Your task to perform on an android device: search for starred emails in the gmail app Image 0: 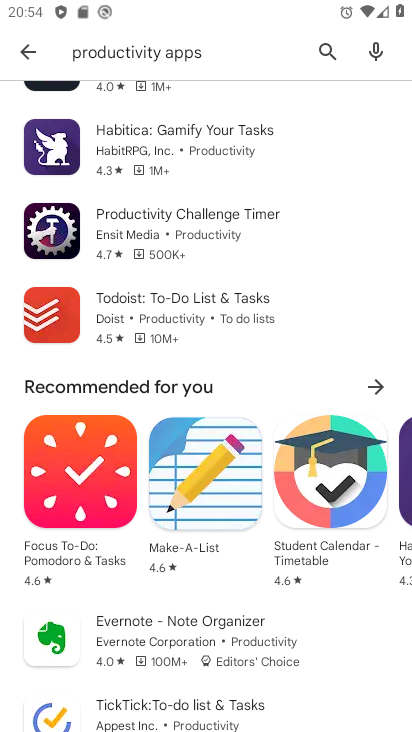
Step 0: press home button
Your task to perform on an android device: search for starred emails in the gmail app Image 1: 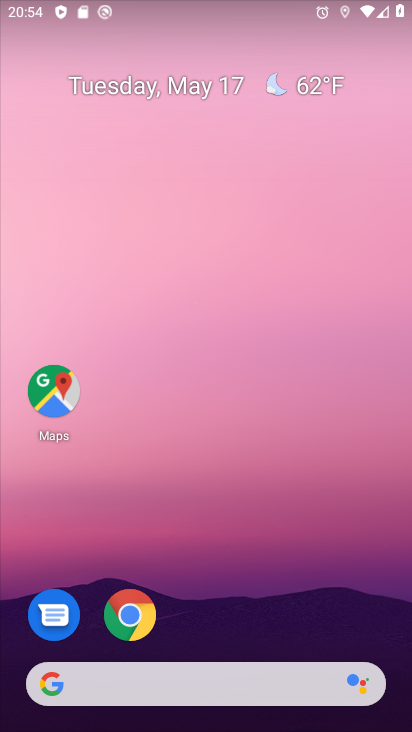
Step 1: drag from (291, 607) to (203, 60)
Your task to perform on an android device: search for starred emails in the gmail app Image 2: 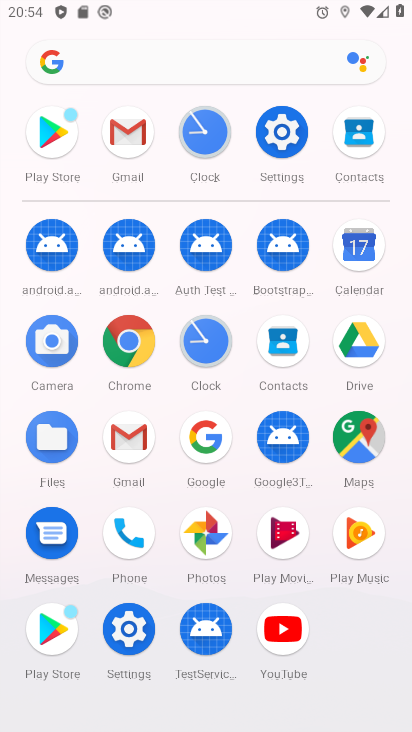
Step 2: click (124, 136)
Your task to perform on an android device: search for starred emails in the gmail app Image 3: 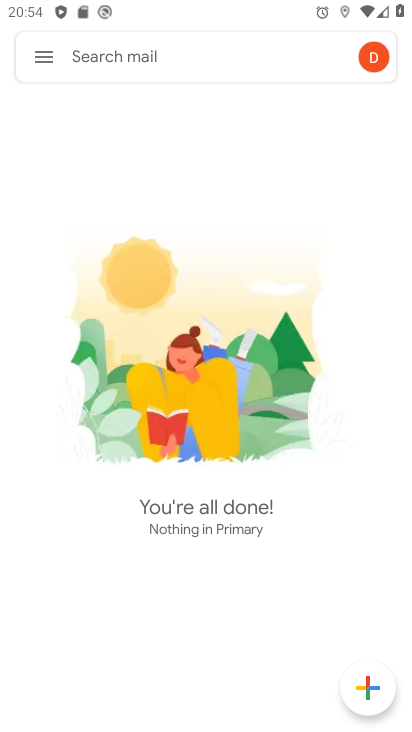
Step 3: click (43, 54)
Your task to perform on an android device: search for starred emails in the gmail app Image 4: 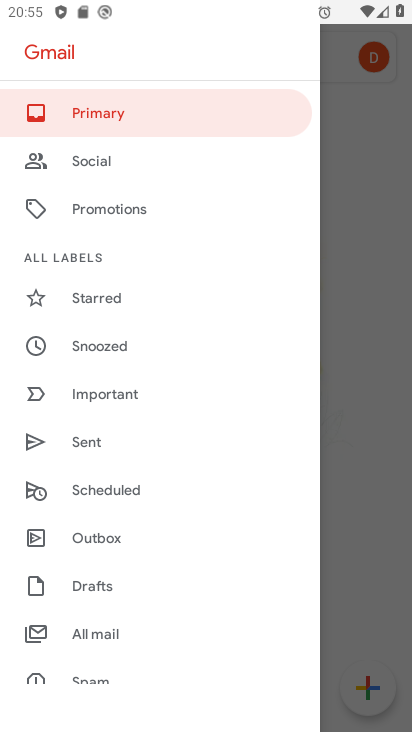
Step 4: click (90, 302)
Your task to perform on an android device: search for starred emails in the gmail app Image 5: 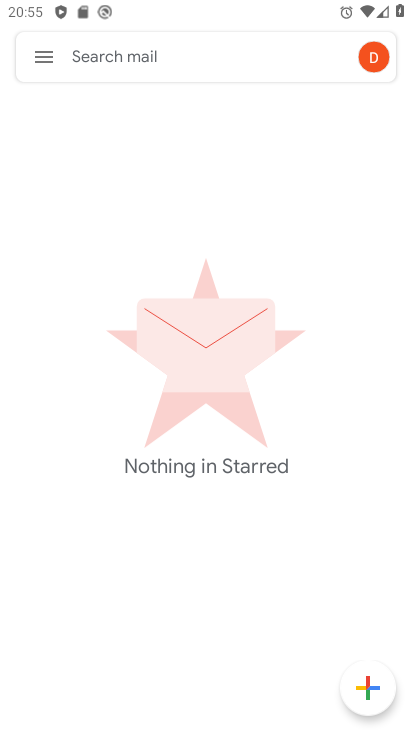
Step 5: task complete